Your task to perform on an android device: find snoozed emails in the gmail app Image 0: 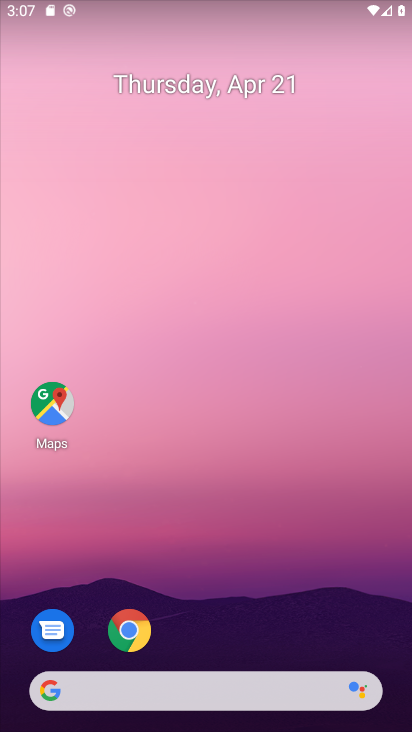
Step 0: drag from (246, 721) to (257, 455)
Your task to perform on an android device: find snoozed emails in the gmail app Image 1: 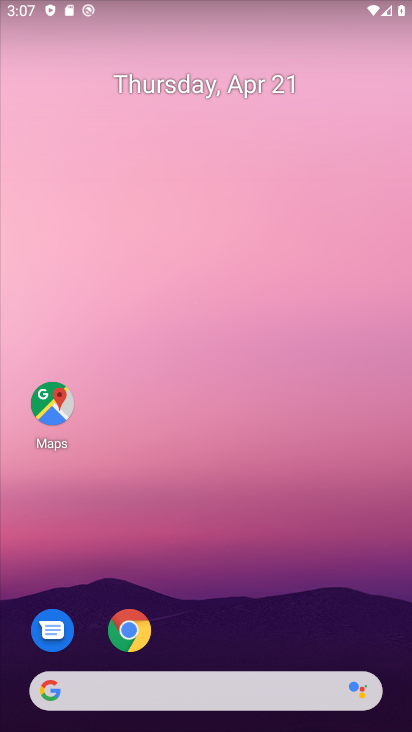
Step 1: drag from (157, 731) to (157, 171)
Your task to perform on an android device: find snoozed emails in the gmail app Image 2: 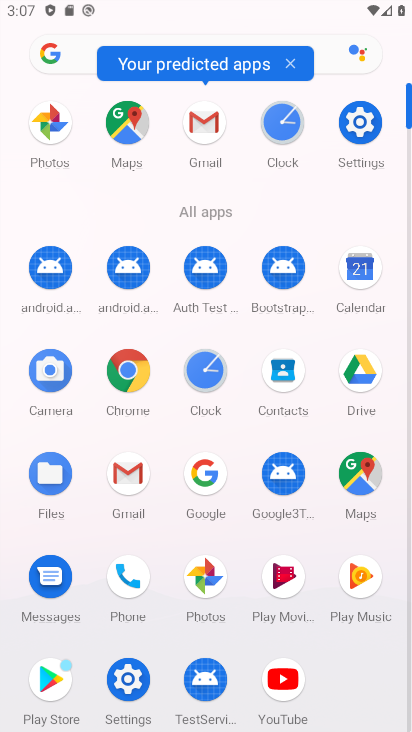
Step 2: click (131, 485)
Your task to perform on an android device: find snoozed emails in the gmail app Image 3: 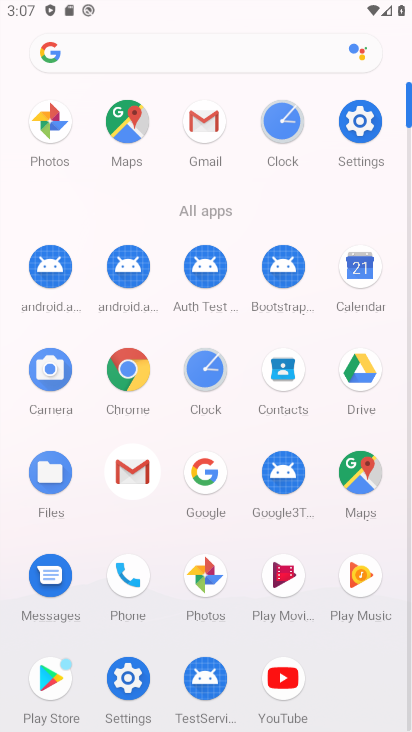
Step 3: click (131, 485)
Your task to perform on an android device: find snoozed emails in the gmail app Image 4: 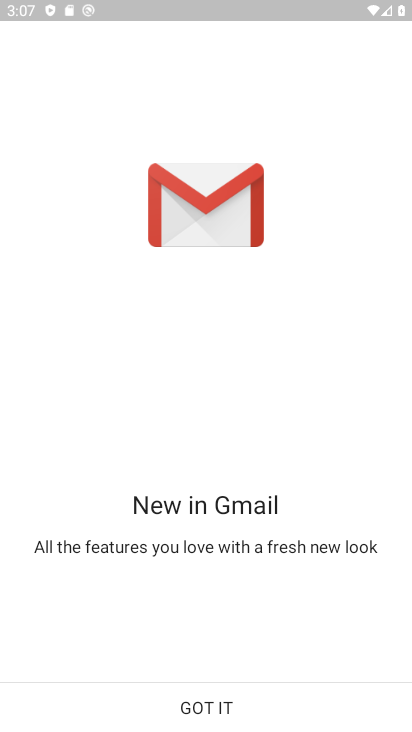
Step 4: click (270, 691)
Your task to perform on an android device: find snoozed emails in the gmail app Image 5: 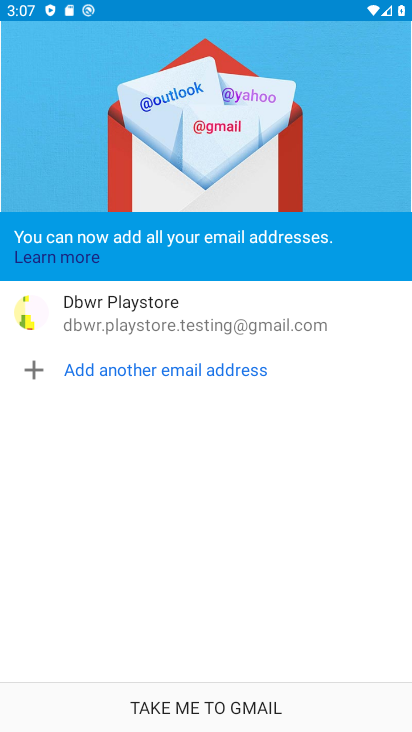
Step 5: click (300, 723)
Your task to perform on an android device: find snoozed emails in the gmail app Image 6: 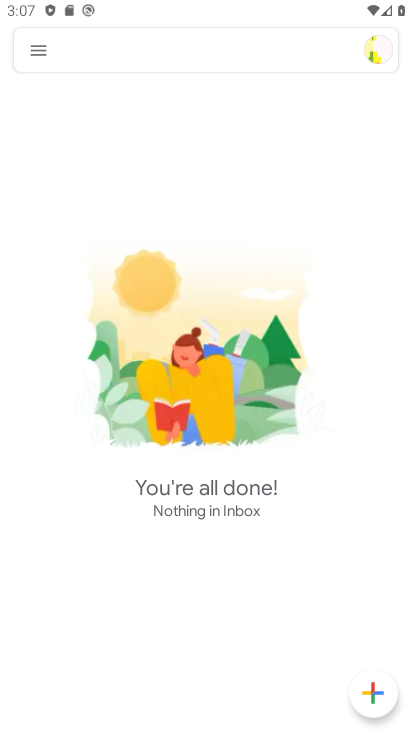
Step 6: click (33, 51)
Your task to perform on an android device: find snoozed emails in the gmail app Image 7: 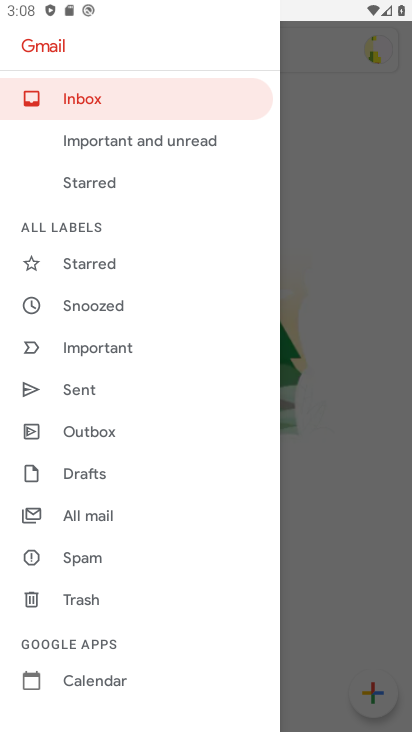
Step 7: click (110, 312)
Your task to perform on an android device: find snoozed emails in the gmail app Image 8: 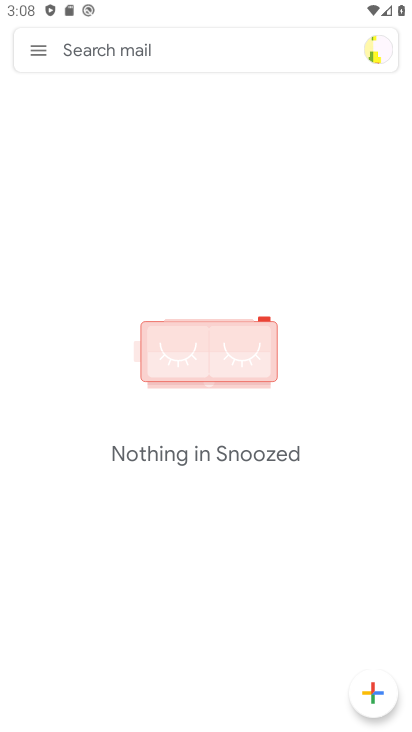
Step 8: task complete